Your task to perform on an android device: turn on translation in the chrome app Image 0: 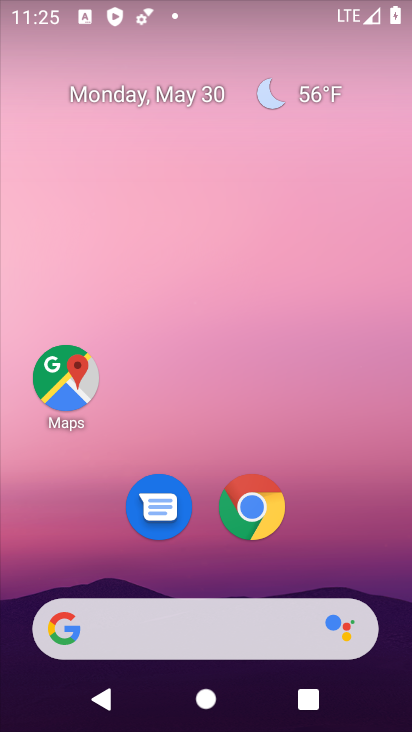
Step 0: drag from (387, 625) to (275, 26)
Your task to perform on an android device: turn on translation in the chrome app Image 1: 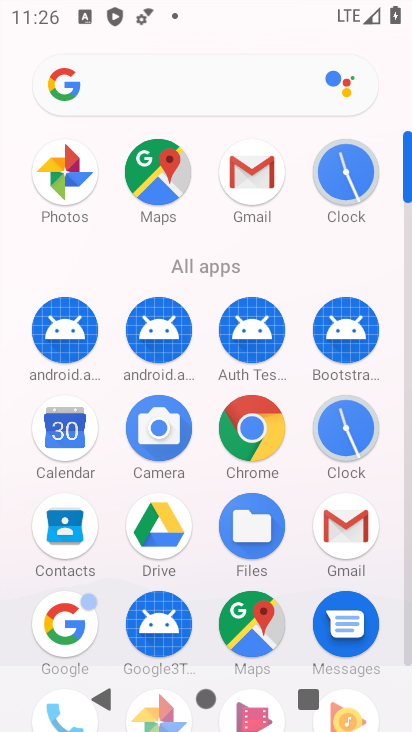
Step 1: click (255, 440)
Your task to perform on an android device: turn on translation in the chrome app Image 2: 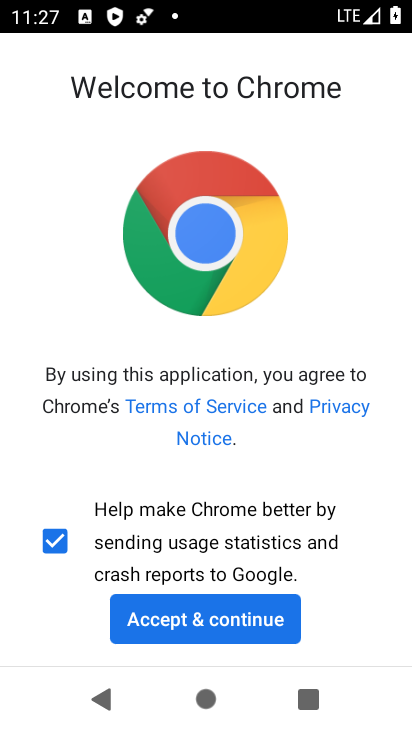
Step 2: click (223, 620)
Your task to perform on an android device: turn on translation in the chrome app Image 3: 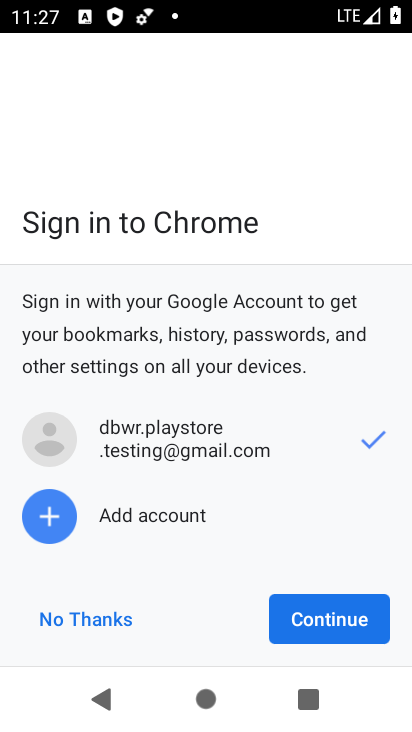
Step 3: click (301, 615)
Your task to perform on an android device: turn on translation in the chrome app Image 4: 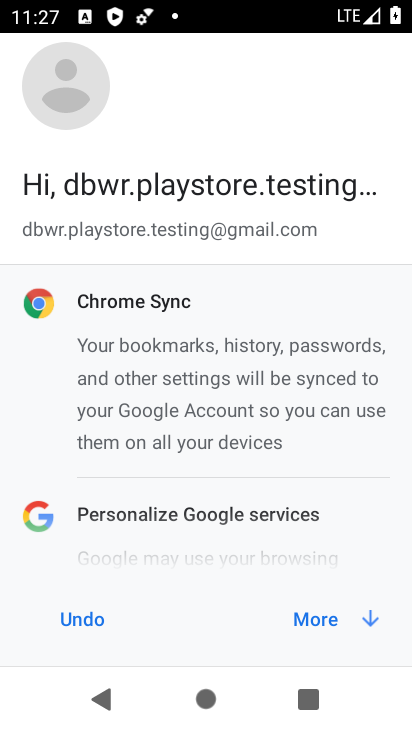
Step 4: click (302, 615)
Your task to perform on an android device: turn on translation in the chrome app Image 5: 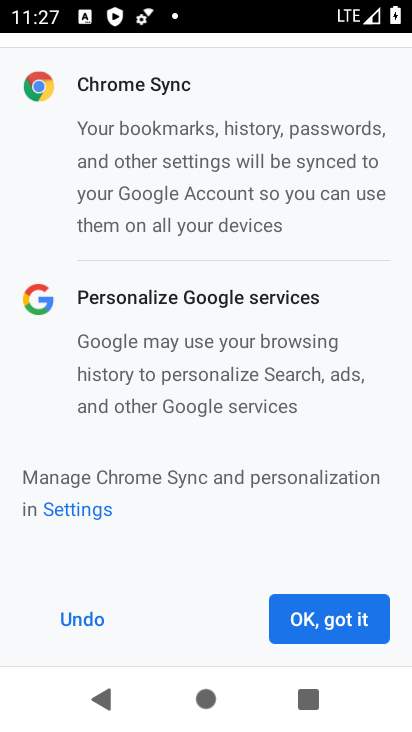
Step 5: click (302, 615)
Your task to perform on an android device: turn on translation in the chrome app Image 6: 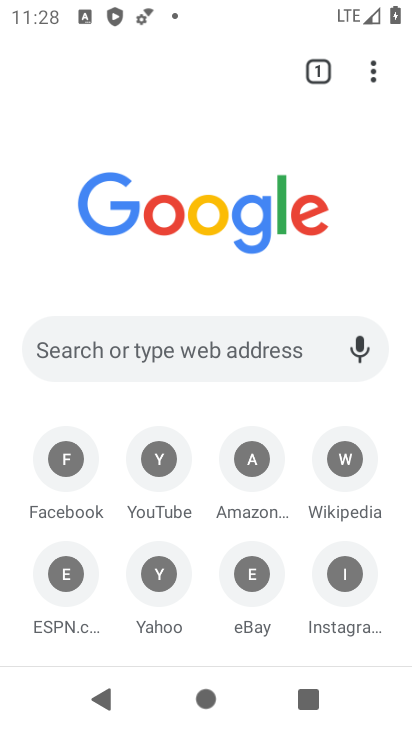
Step 6: click (371, 59)
Your task to perform on an android device: turn on translation in the chrome app Image 7: 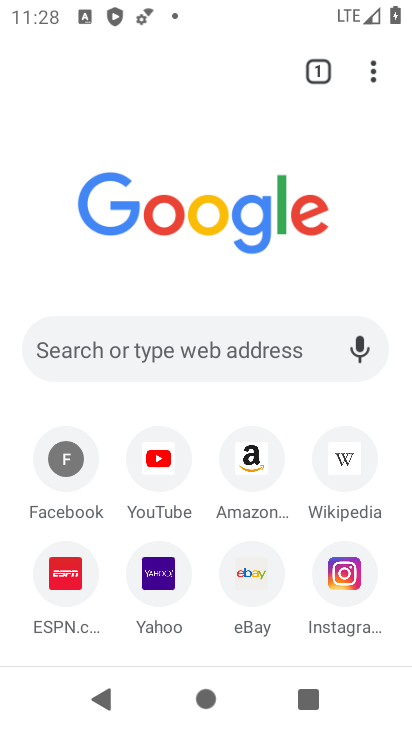
Step 7: click (374, 65)
Your task to perform on an android device: turn on translation in the chrome app Image 8: 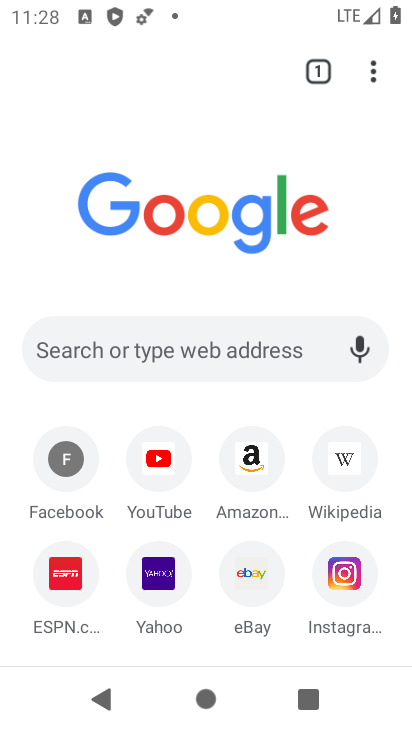
Step 8: click (370, 68)
Your task to perform on an android device: turn on translation in the chrome app Image 9: 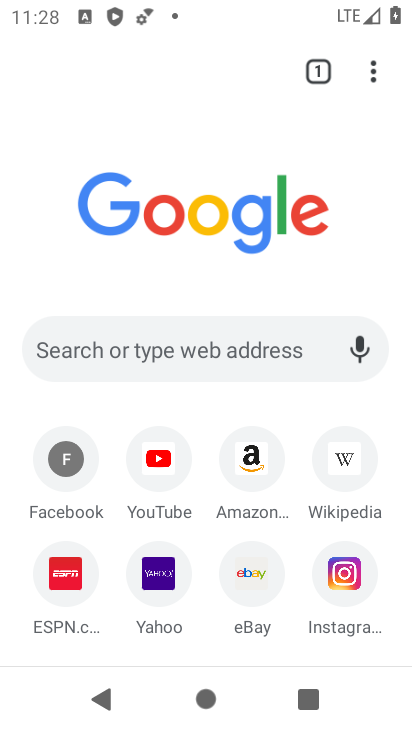
Step 9: click (370, 68)
Your task to perform on an android device: turn on translation in the chrome app Image 10: 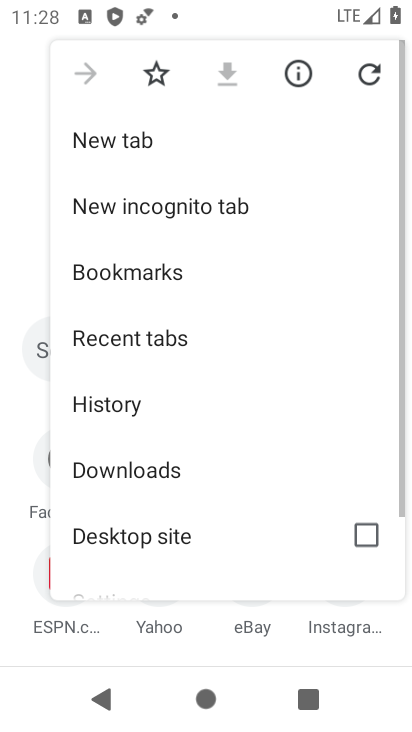
Step 10: drag from (154, 539) to (200, 125)
Your task to perform on an android device: turn on translation in the chrome app Image 11: 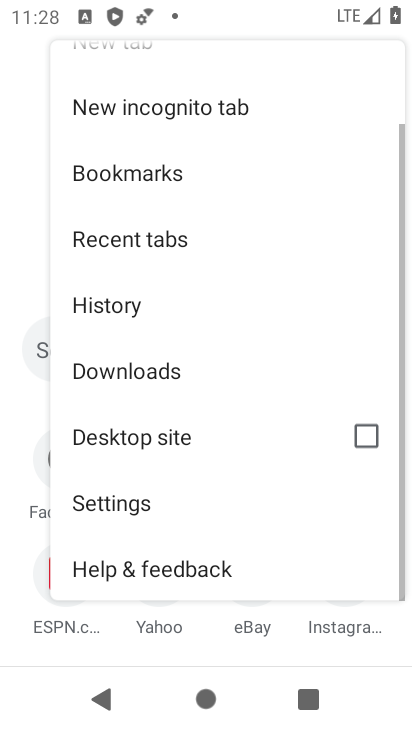
Step 11: click (127, 513)
Your task to perform on an android device: turn on translation in the chrome app Image 12: 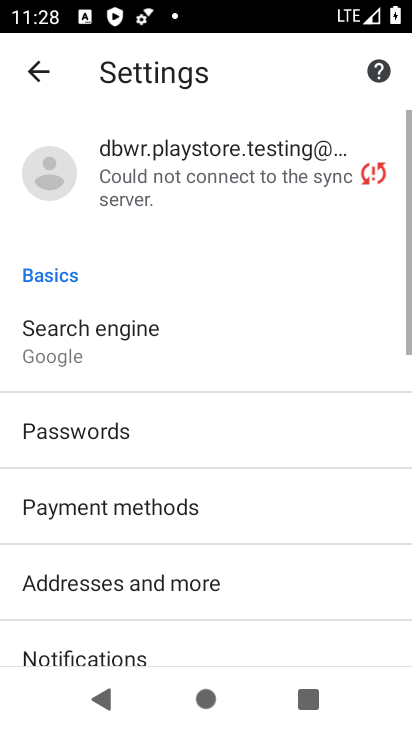
Step 12: drag from (142, 616) to (243, 149)
Your task to perform on an android device: turn on translation in the chrome app Image 13: 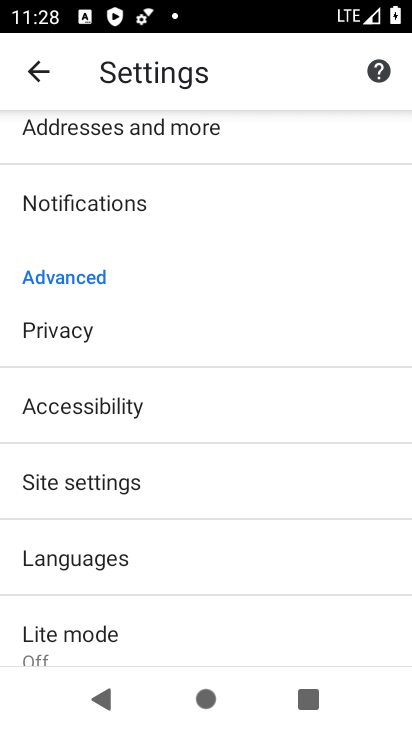
Step 13: click (114, 546)
Your task to perform on an android device: turn on translation in the chrome app Image 14: 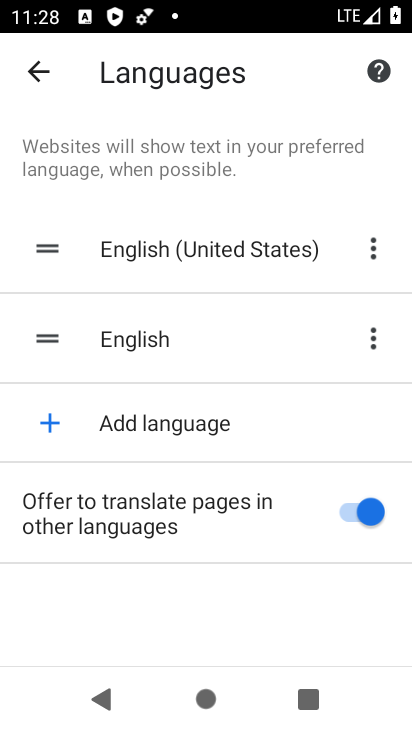
Step 14: task complete